Your task to perform on an android device: Open battery settings Image 0: 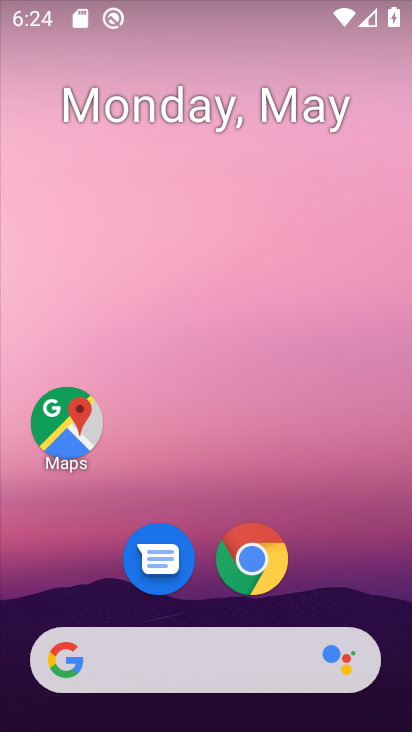
Step 0: drag from (357, 458) to (338, 157)
Your task to perform on an android device: Open battery settings Image 1: 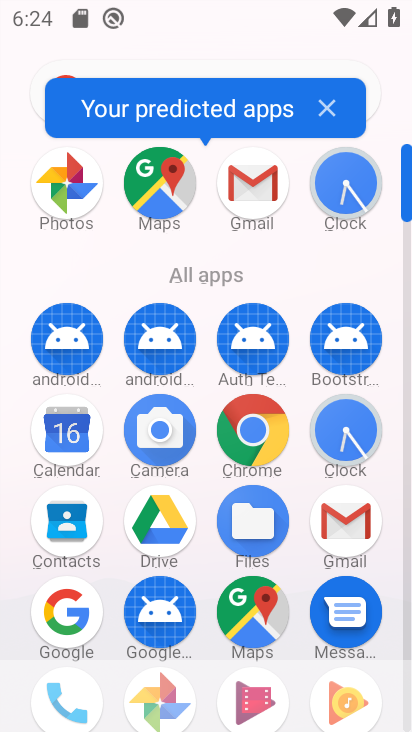
Step 1: drag from (294, 634) to (325, 367)
Your task to perform on an android device: Open battery settings Image 2: 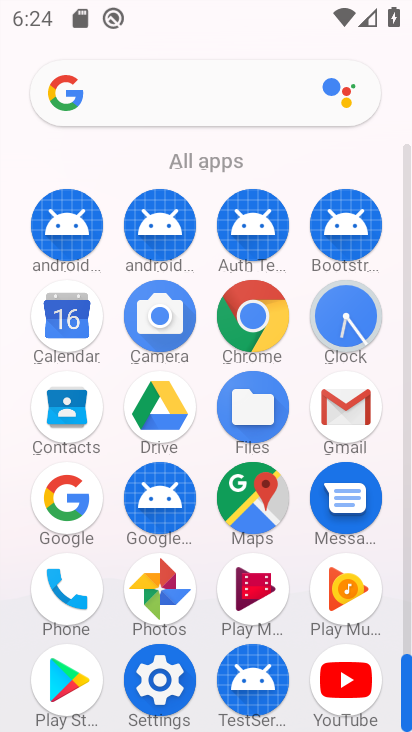
Step 2: click (147, 675)
Your task to perform on an android device: Open battery settings Image 3: 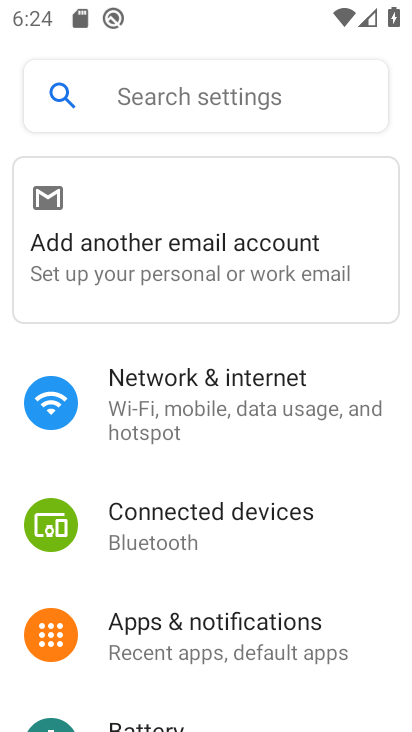
Step 3: drag from (149, 652) to (152, 342)
Your task to perform on an android device: Open battery settings Image 4: 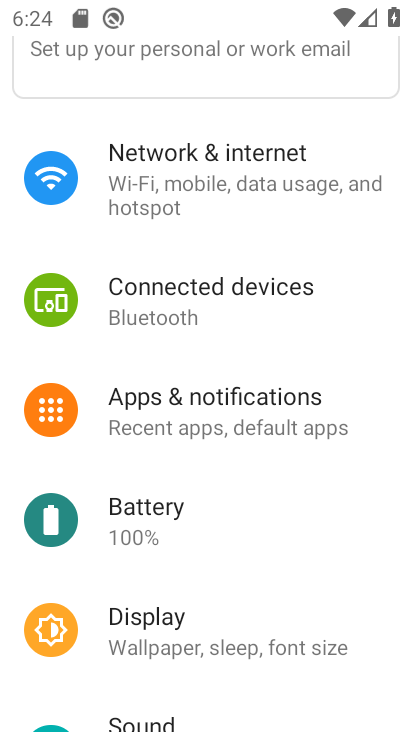
Step 4: click (169, 532)
Your task to perform on an android device: Open battery settings Image 5: 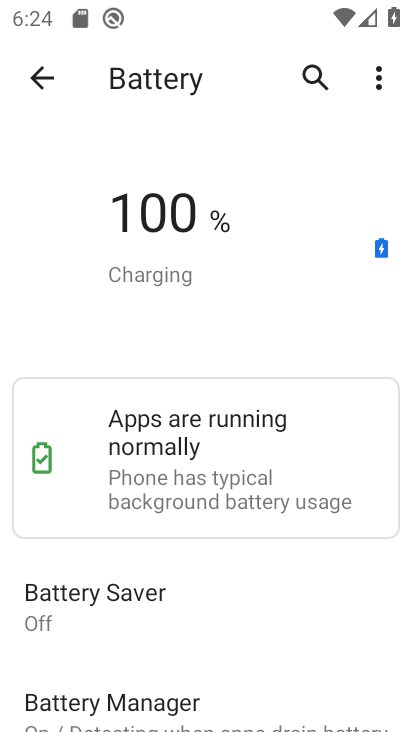
Step 5: task complete